Your task to perform on an android device: install app "Duolingo: language lessons" Image 0: 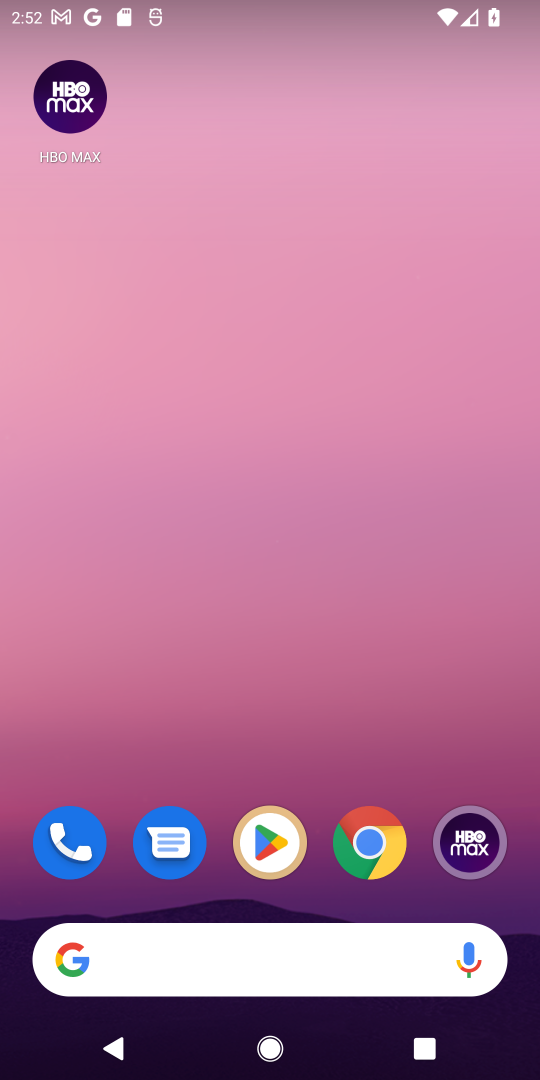
Step 0: drag from (221, 885) to (222, 293)
Your task to perform on an android device: install app "Duolingo: language lessons" Image 1: 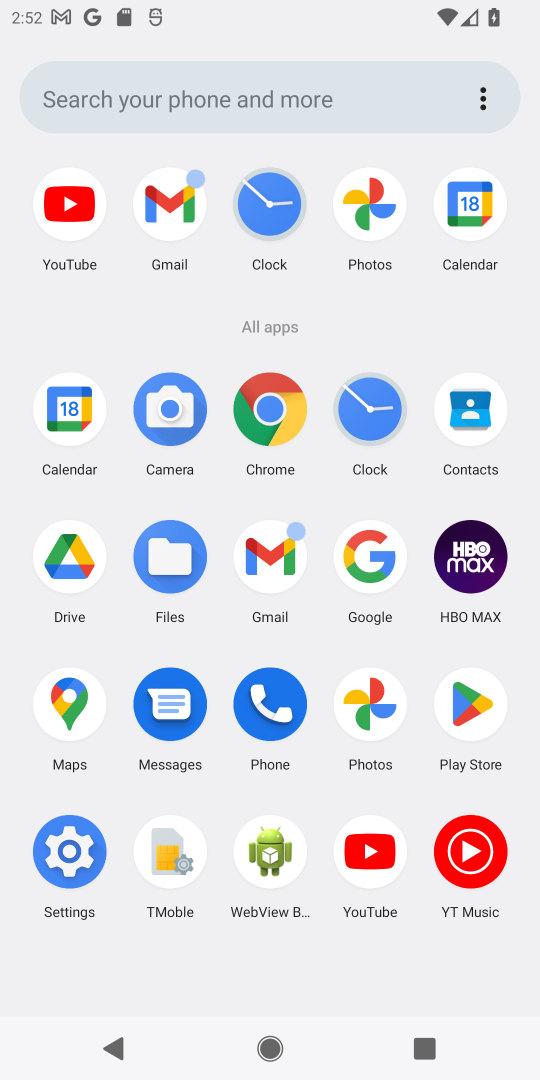
Step 1: click (488, 710)
Your task to perform on an android device: install app "Duolingo: language lessons" Image 2: 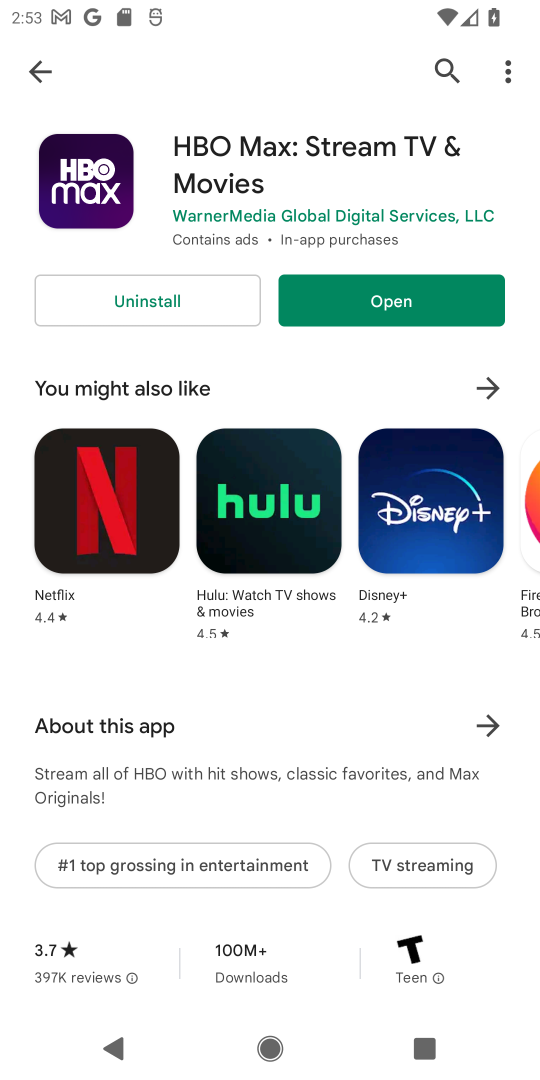
Step 2: click (28, 79)
Your task to perform on an android device: install app "Duolingo: language lessons" Image 3: 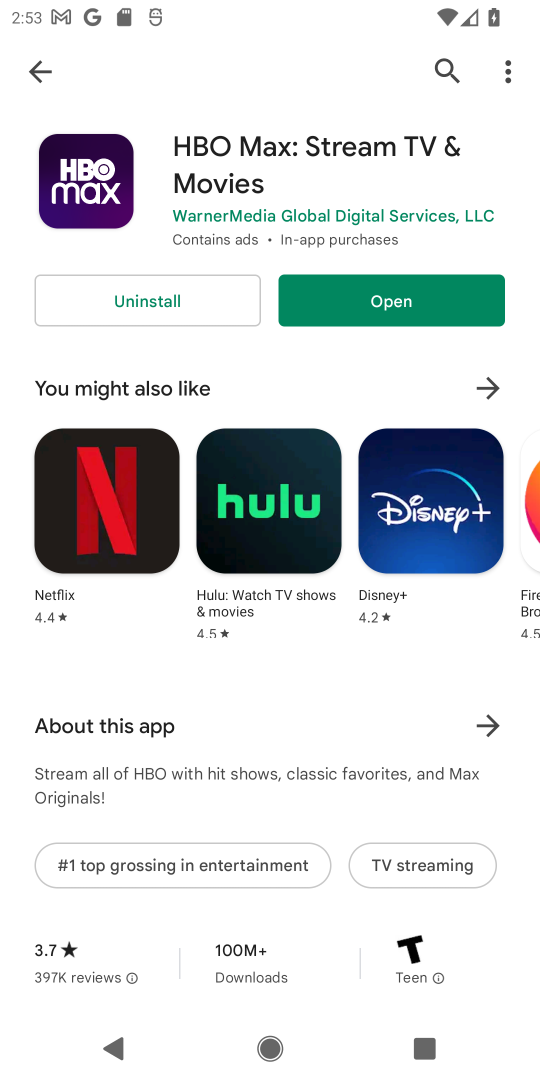
Step 3: click (28, 79)
Your task to perform on an android device: install app "Duolingo: language lessons" Image 4: 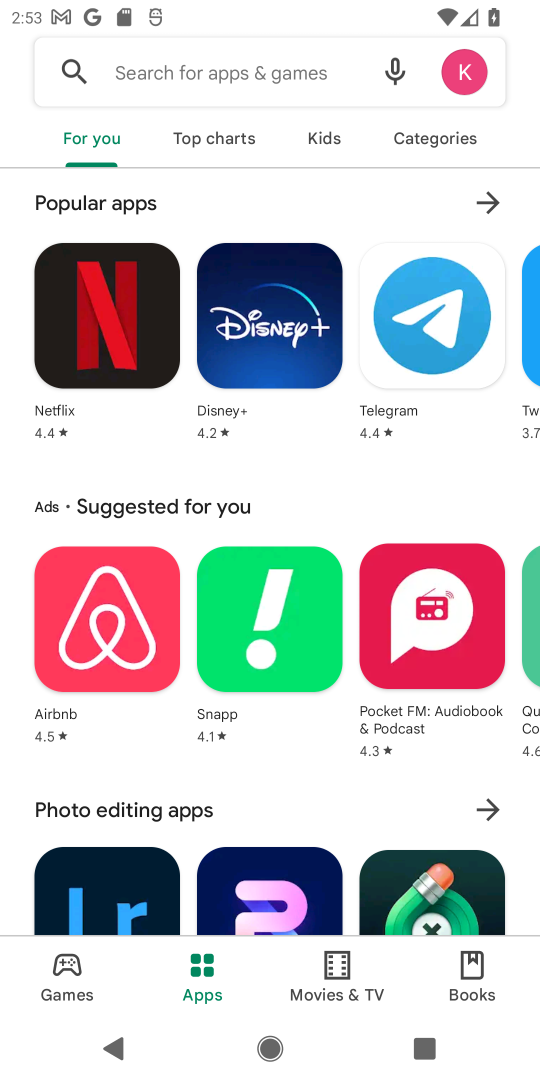
Step 4: click (243, 51)
Your task to perform on an android device: install app "Duolingo: language lessons" Image 5: 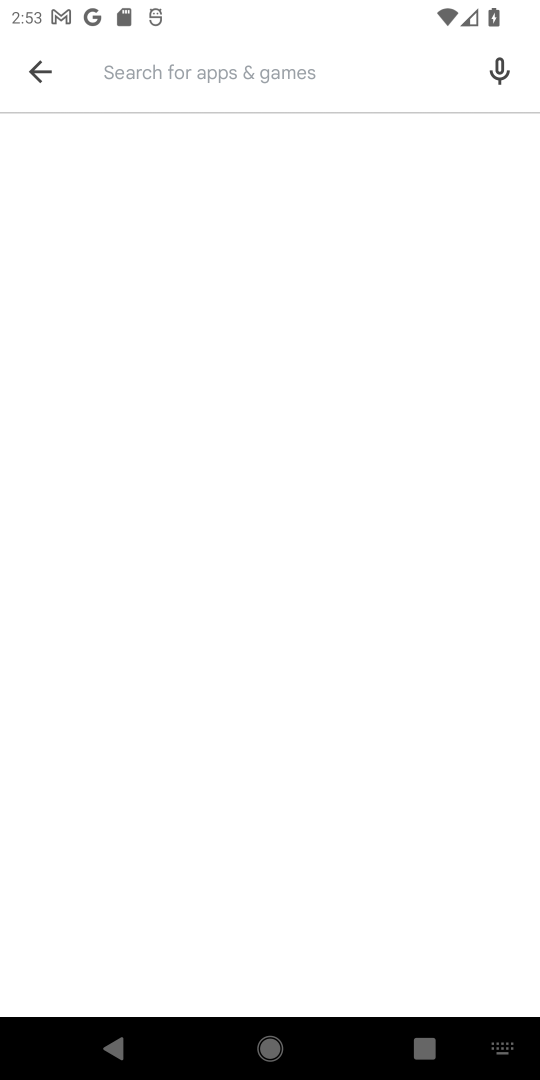
Step 5: type "Duolingo: language lessons"
Your task to perform on an android device: install app "Duolingo: language lessons" Image 6: 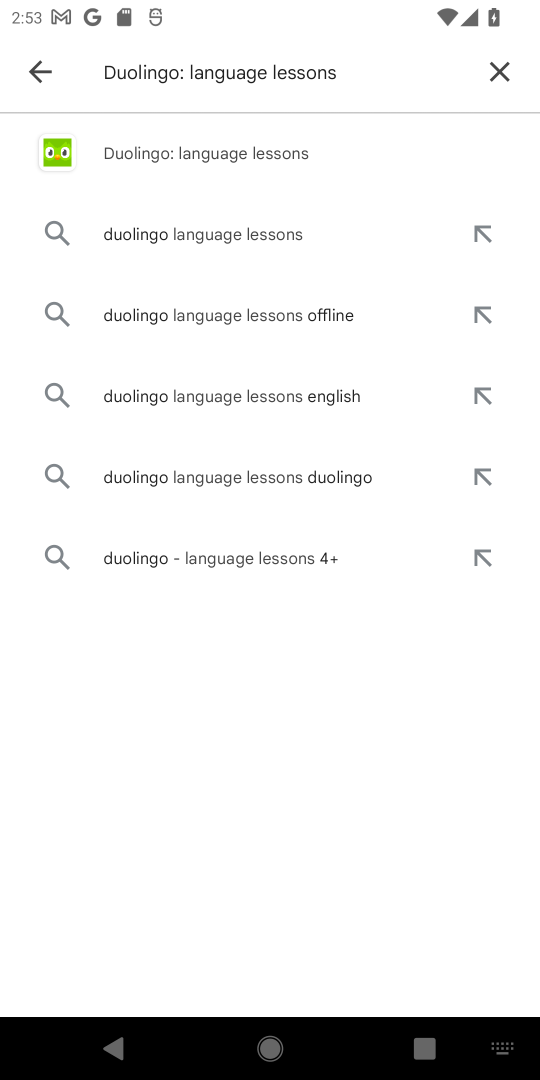
Step 6: click (153, 158)
Your task to perform on an android device: install app "Duolingo: language lessons" Image 7: 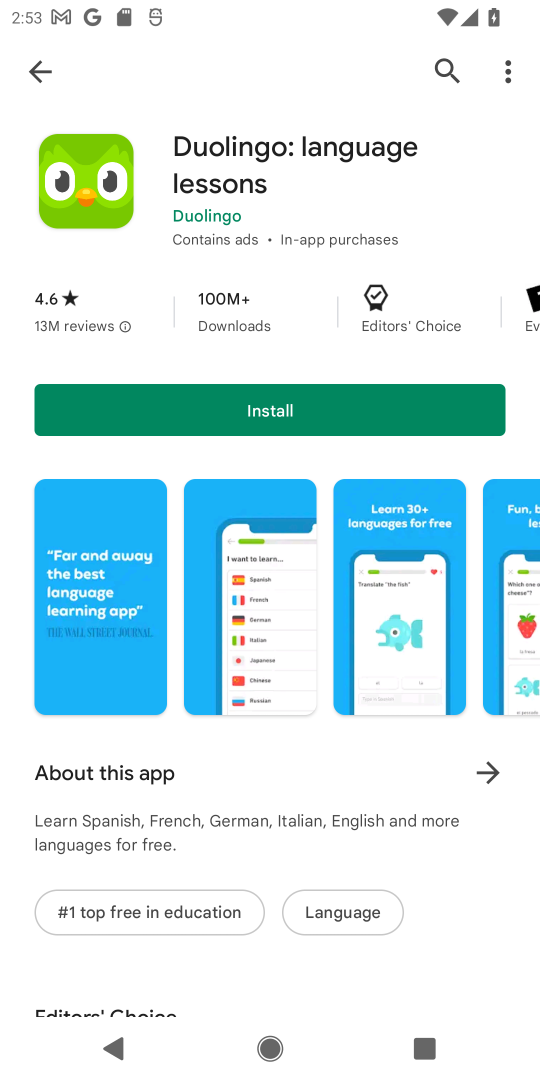
Step 7: click (266, 389)
Your task to perform on an android device: install app "Duolingo: language lessons" Image 8: 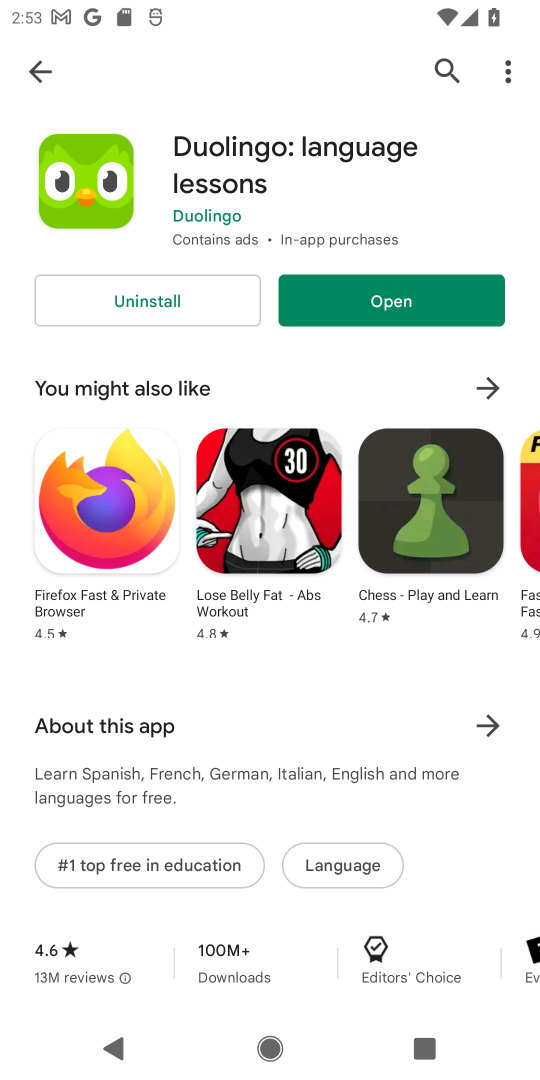
Step 8: click (385, 294)
Your task to perform on an android device: install app "Duolingo: language lessons" Image 9: 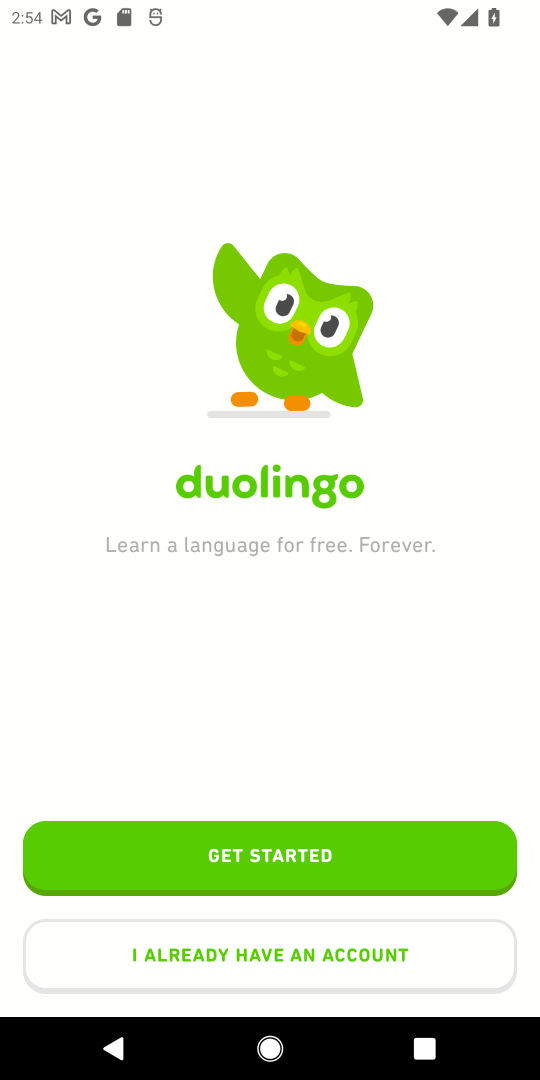
Step 9: task complete